Your task to perform on an android device: turn on improve location accuracy Image 0: 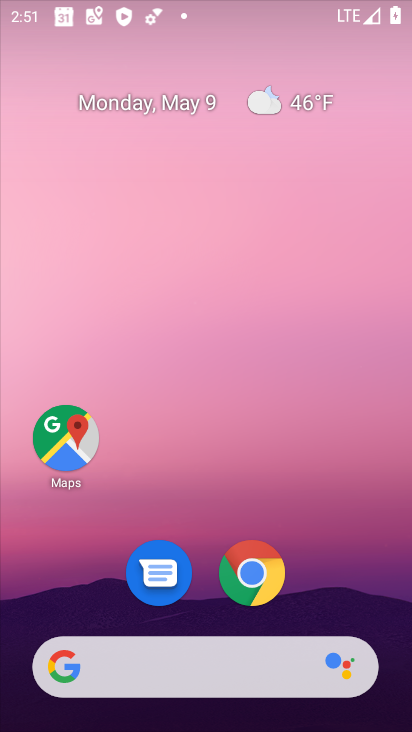
Step 0: press home button
Your task to perform on an android device: turn on improve location accuracy Image 1: 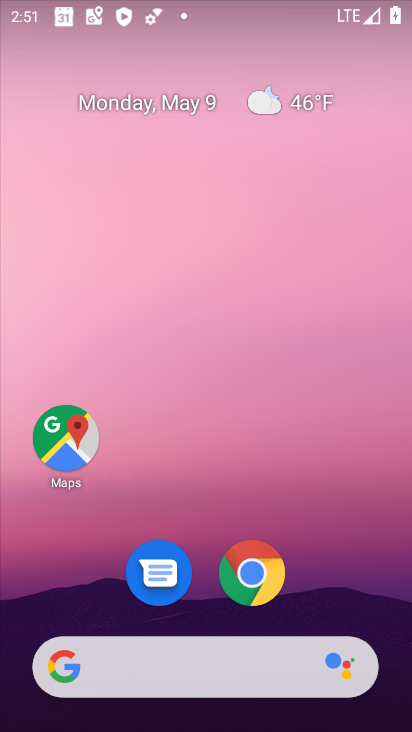
Step 1: drag from (206, 587) to (257, 70)
Your task to perform on an android device: turn on improve location accuracy Image 2: 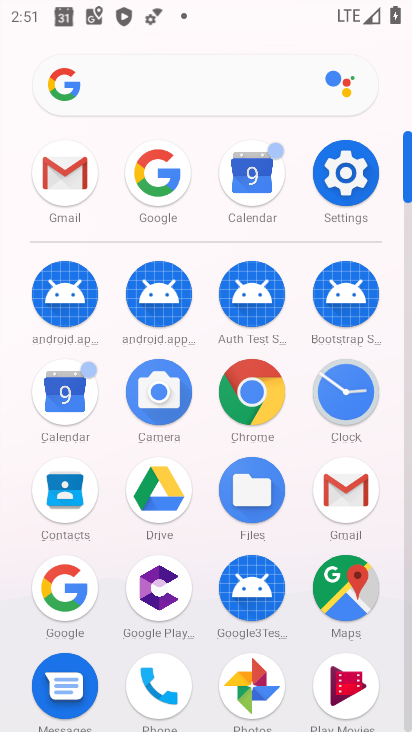
Step 2: click (346, 172)
Your task to perform on an android device: turn on improve location accuracy Image 3: 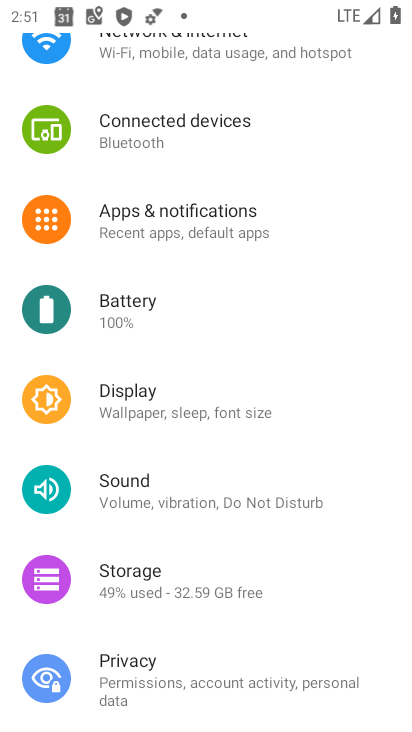
Step 3: drag from (181, 300) to (176, 42)
Your task to perform on an android device: turn on improve location accuracy Image 4: 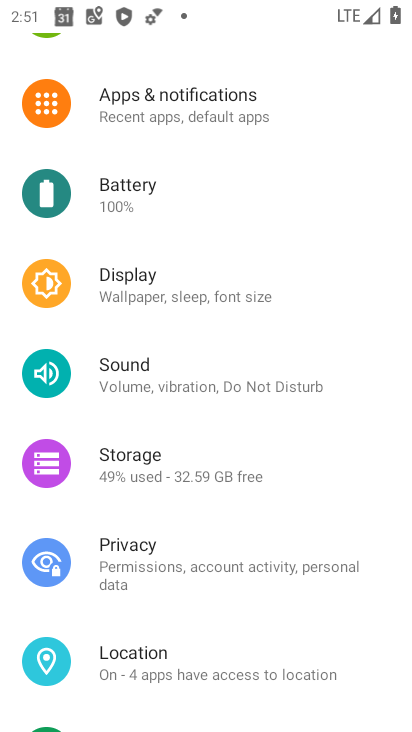
Step 4: drag from (263, 370) to (255, 16)
Your task to perform on an android device: turn on improve location accuracy Image 5: 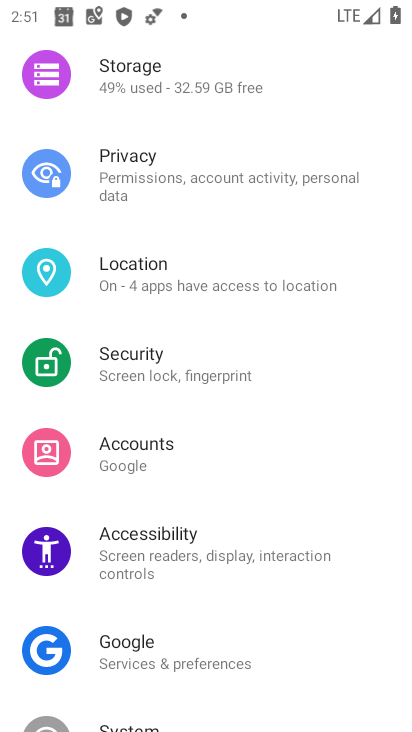
Step 5: drag from (199, 121) to (211, 181)
Your task to perform on an android device: turn on improve location accuracy Image 6: 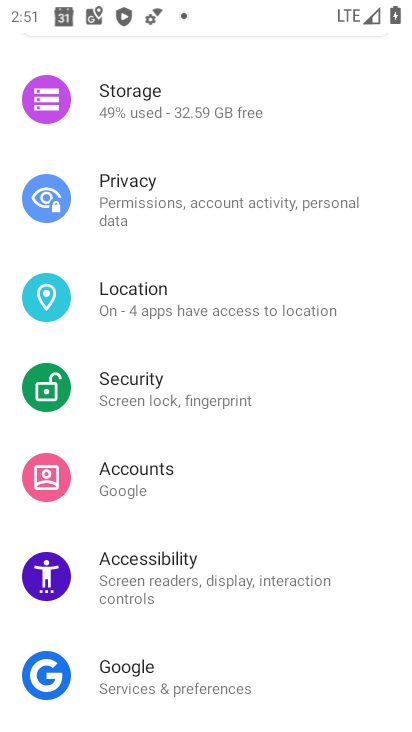
Step 6: click (177, 320)
Your task to perform on an android device: turn on improve location accuracy Image 7: 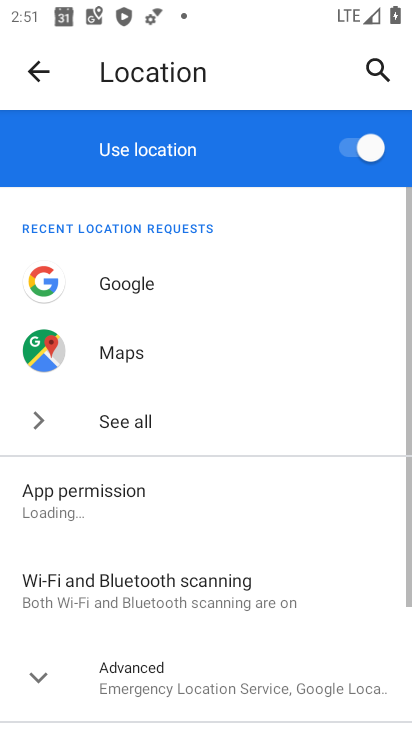
Step 7: drag from (212, 571) to (217, 250)
Your task to perform on an android device: turn on improve location accuracy Image 8: 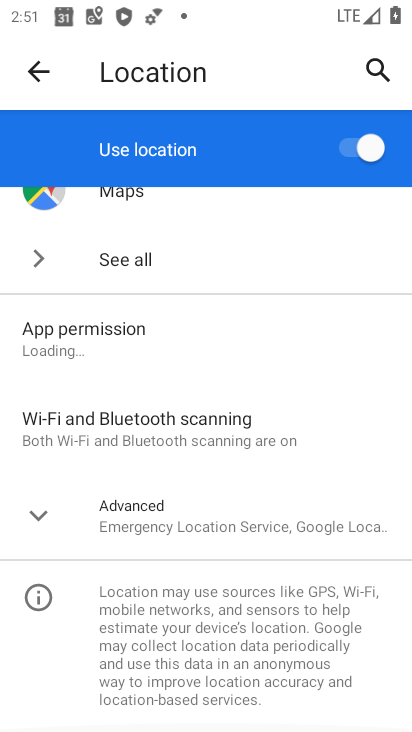
Step 8: click (177, 550)
Your task to perform on an android device: turn on improve location accuracy Image 9: 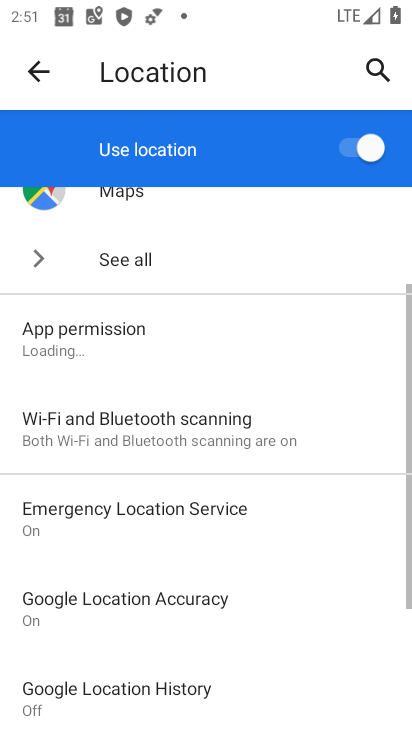
Step 9: task complete